Your task to perform on an android device: Add "bose soundlink mini" to the cart on amazon.com Image 0: 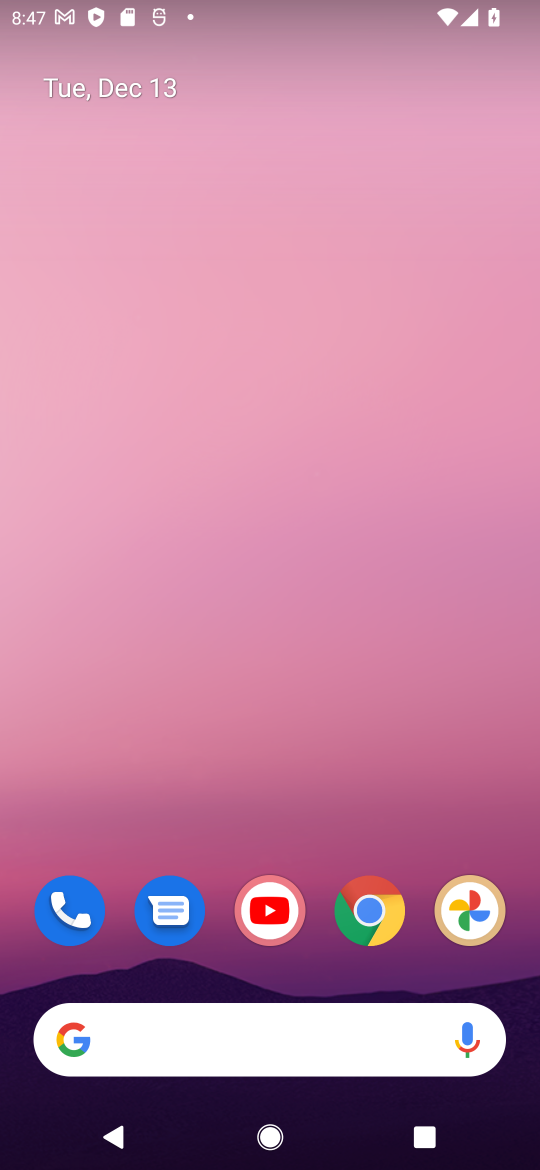
Step 0: drag from (259, 929) to (259, 314)
Your task to perform on an android device: Add "bose soundlink mini" to the cart on amazon.com Image 1: 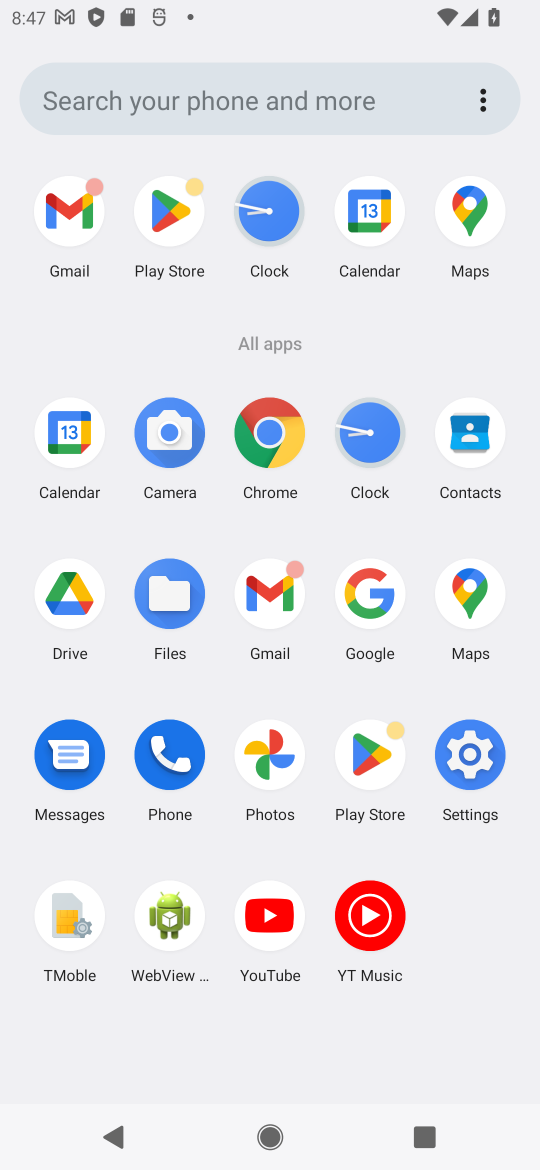
Step 1: click (375, 592)
Your task to perform on an android device: Add "bose soundlink mini" to the cart on amazon.com Image 2: 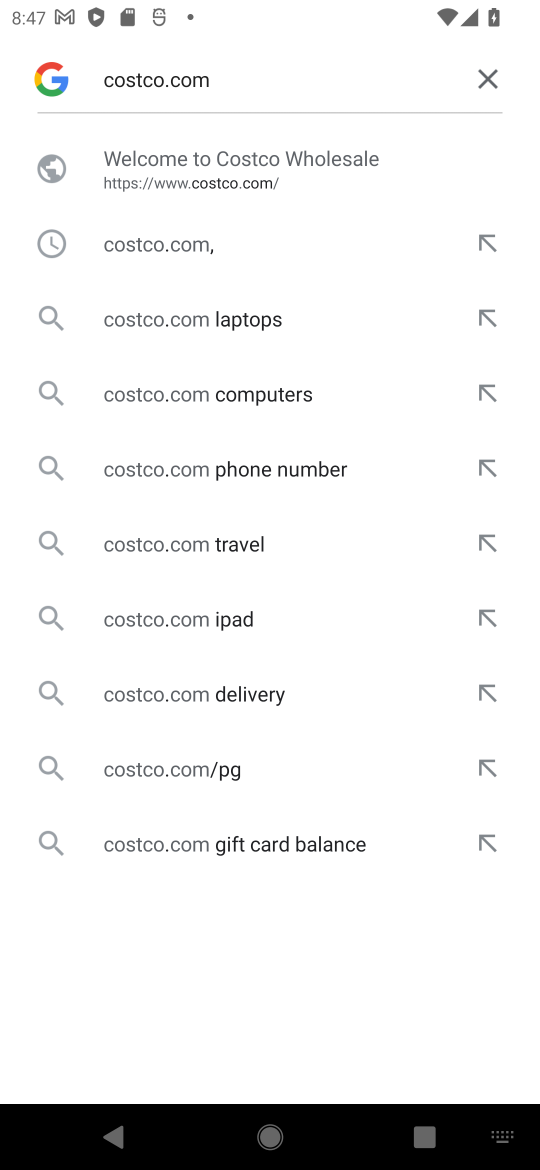
Step 2: click (170, 64)
Your task to perform on an android device: Add "bose soundlink mini" to the cart on amazon.com Image 3: 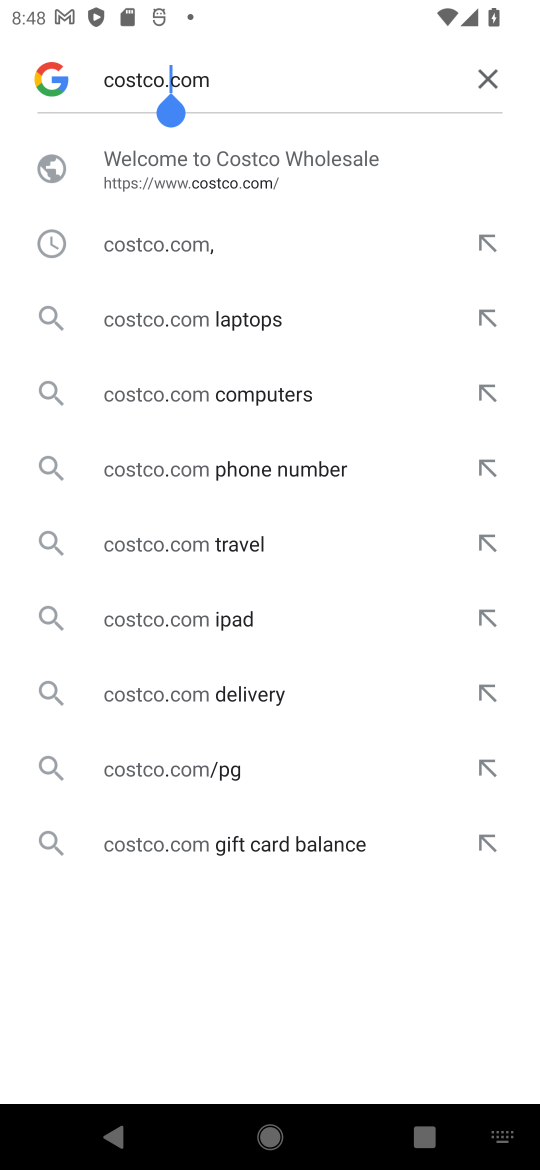
Step 3: click (495, 82)
Your task to perform on an android device: Add "bose soundlink mini" to the cart on amazon.com Image 4: 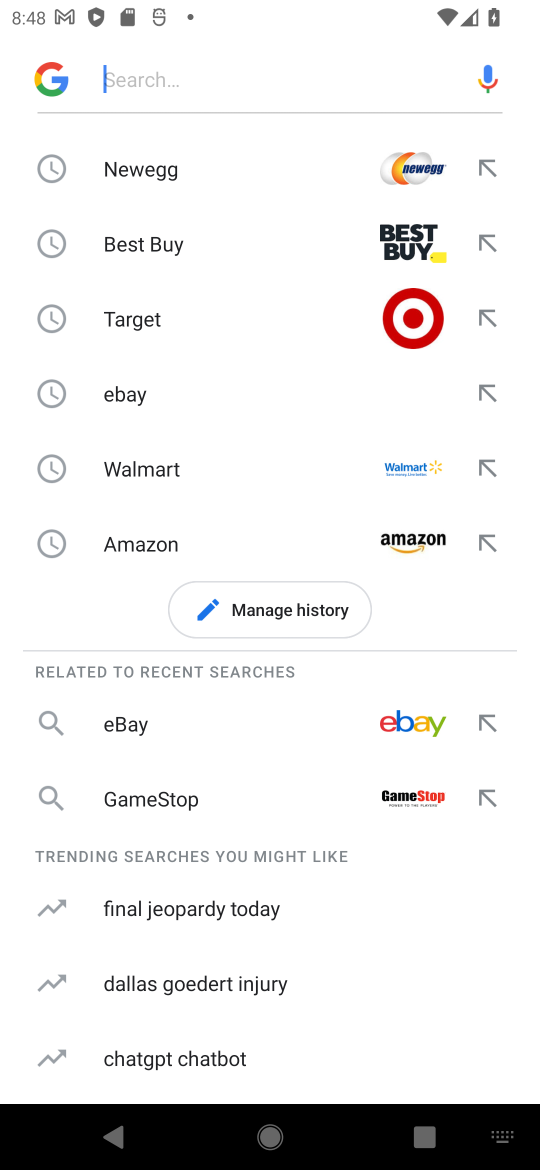
Step 4: click (151, 538)
Your task to perform on an android device: Add "bose soundlink mini" to the cart on amazon.com Image 5: 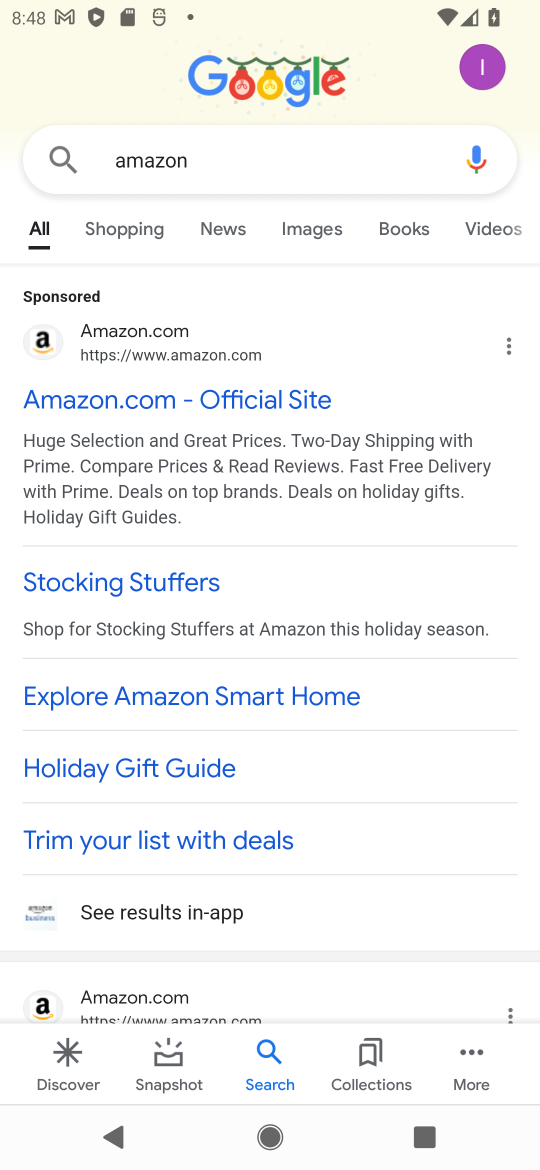
Step 5: click (138, 395)
Your task to perform on an android device: Add "bose soundlink mini" to the cart on amazon.com Image 6: 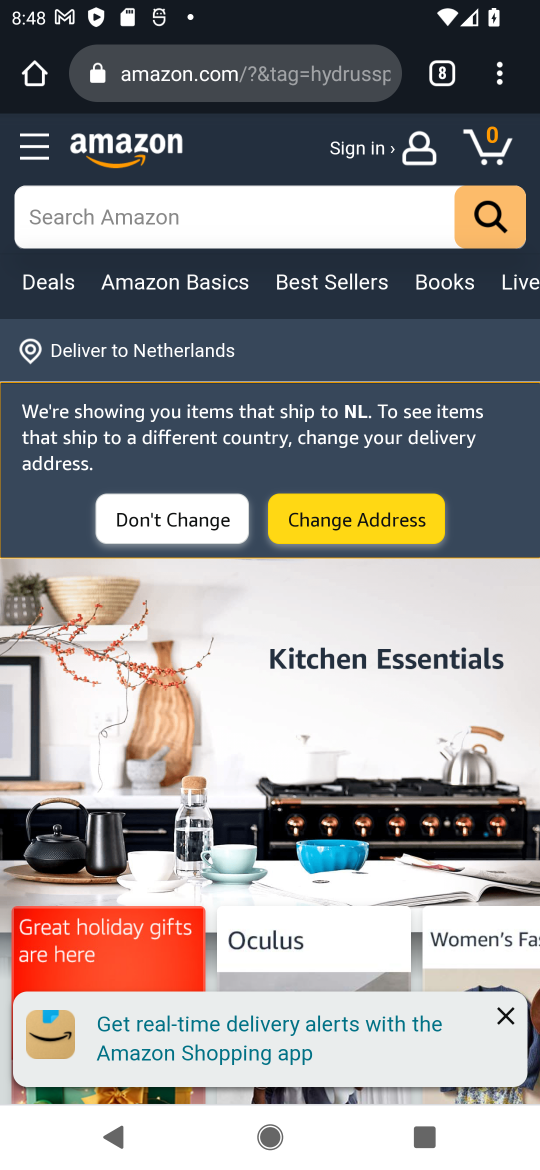
Step 6: click (192, 214)
Your task to perform on an android device: Add "bose soundlink mini" to the cart on amazon.com Image 7: 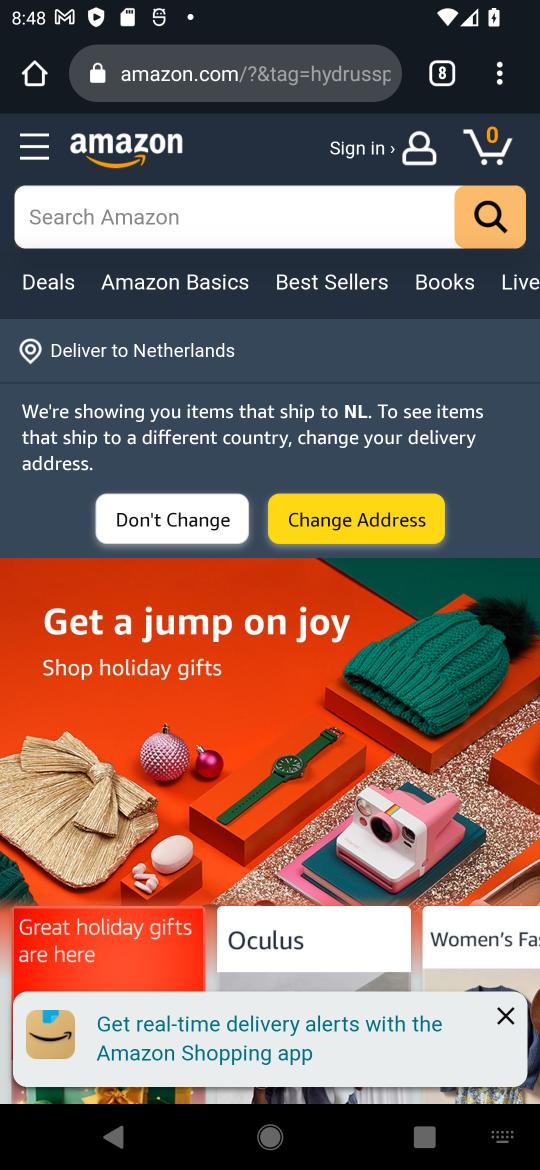
Step 7: type "bose soundlink mini"
Your task to perform on an android device: Add "bose soundlink mini" to the cart on amazon.com Image 8: 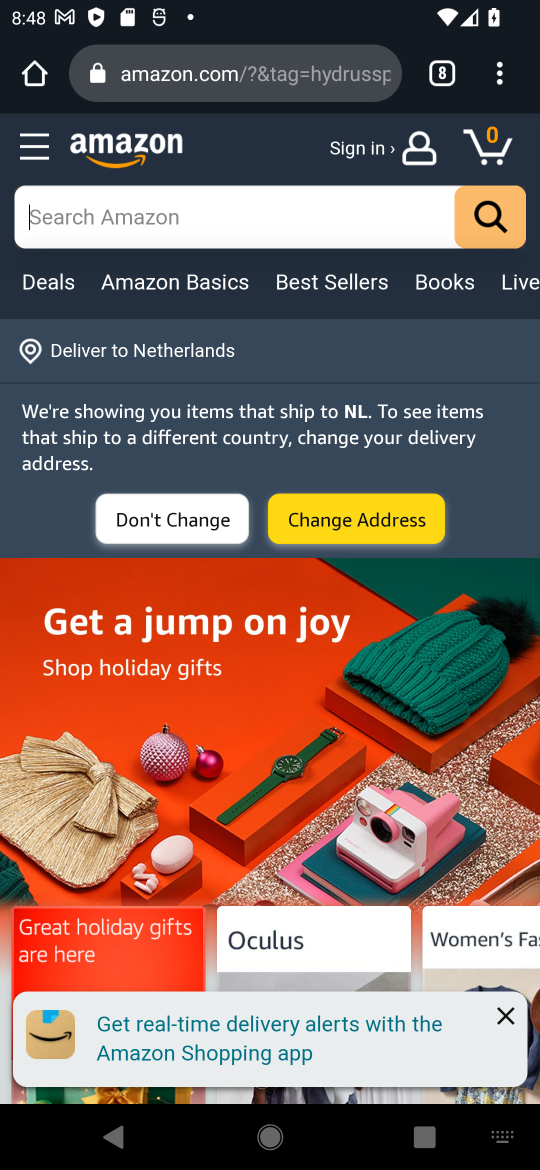
Step 8: click (505, 225)
Your task to perform on an android device: Add "bose soundlink mini" to the cart on amazon.com Image 9: 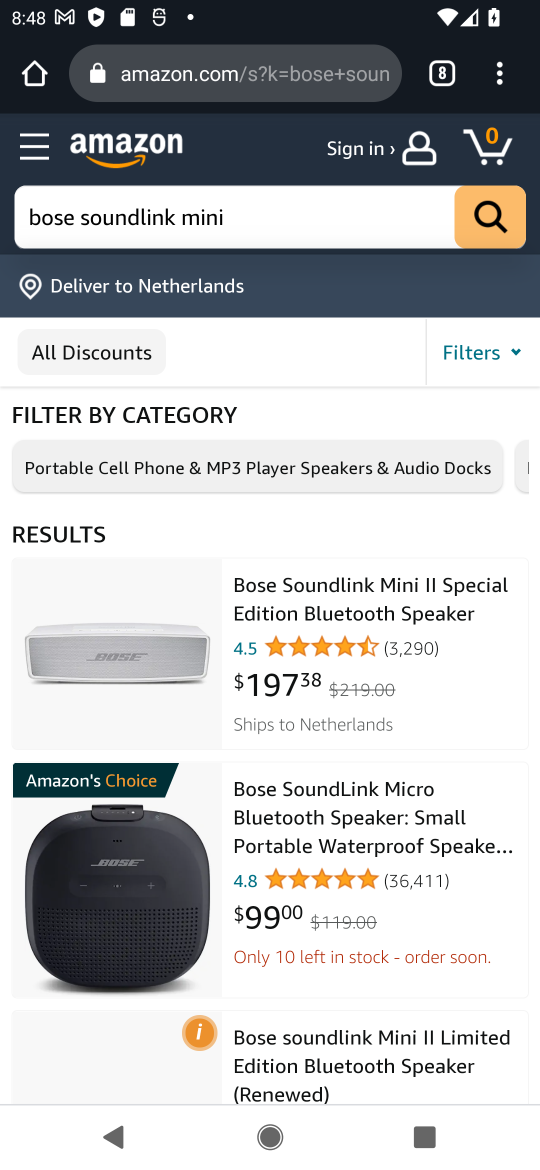
Step 9: click (373, 601)
Your task to perform on an android device: Add "bose soundlink mini" to the cart on amazon.com Image 10: 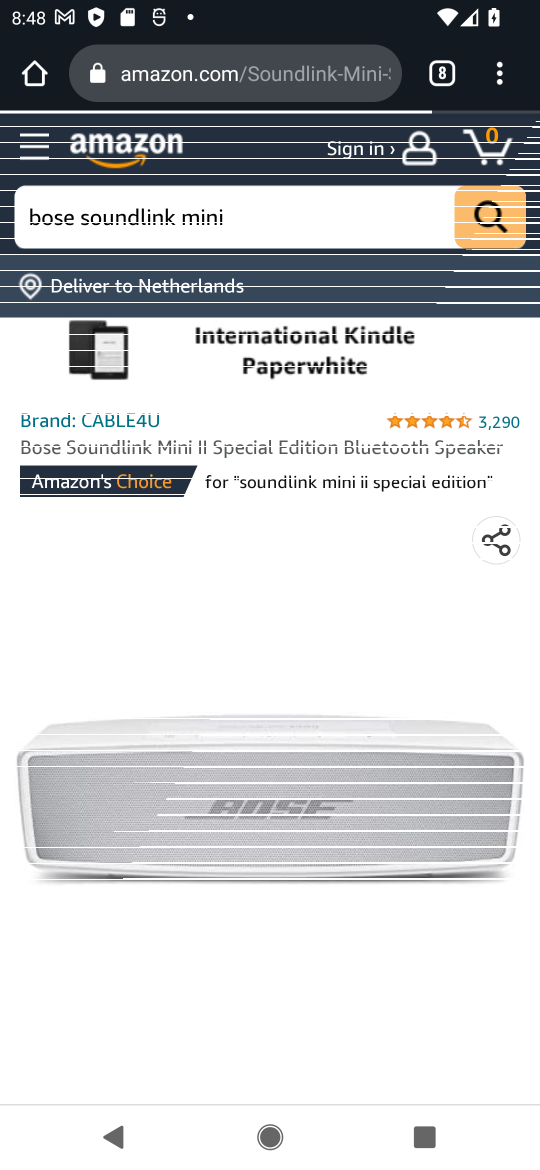
Step 10: drag from (455, 953) to (455, 422)
Your task to perform on an android device: Add "bose soundlink mini" to the cart on amazon.com Image 11: 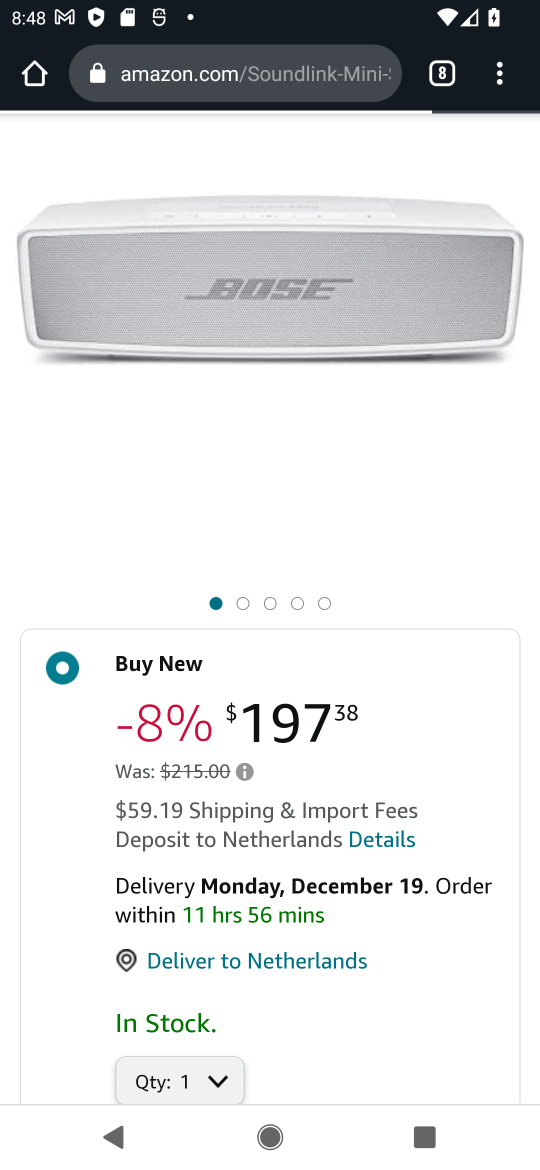
Step 11: drag from (460, 1030) to (451, 573)
Your task to perform on an android device: Add "bose soundlink mini" to the cart on amazon.com Image 12: 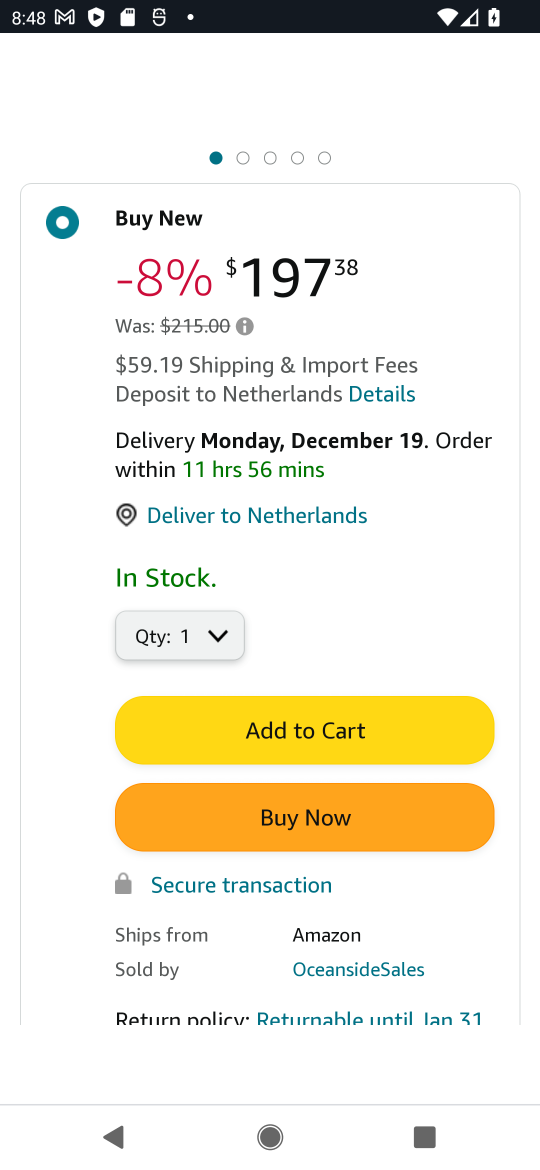
Step 12: click (331, 721)
Your task to perform on an android device: Add "bose soundlink mini" to the cart on amazon.com Image 13: 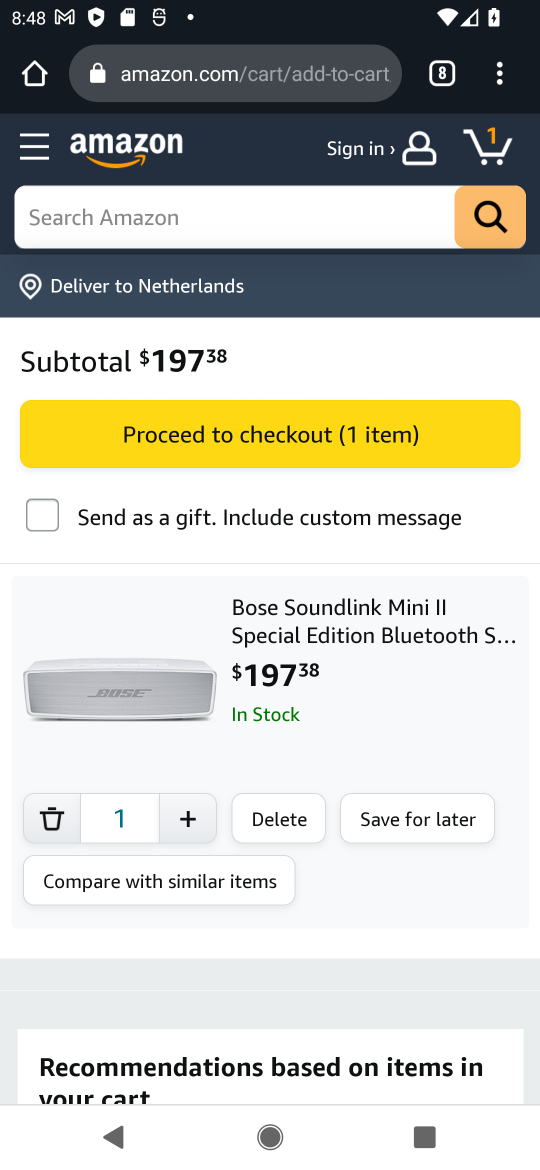
Step 13: task complete